Your task to perform on an android device: Go to Google Image 0: 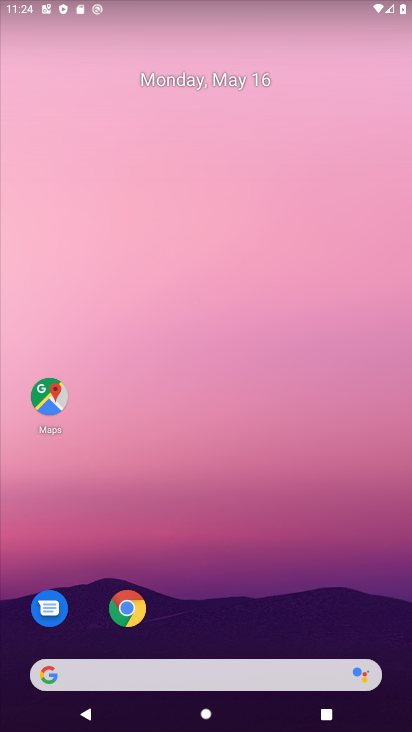
Step 0: press home button
Your task to perform on an android device: Go to Google Image 1: 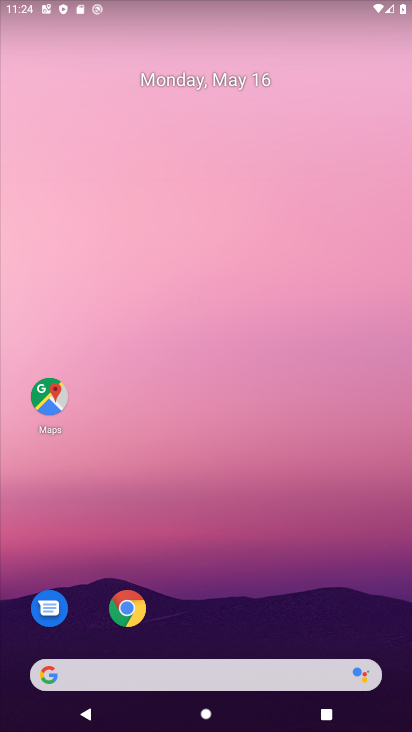
Step 1: drag from (95, 672) to (175, 182)
Your task to perform on an android device: Go to Google Image 2: 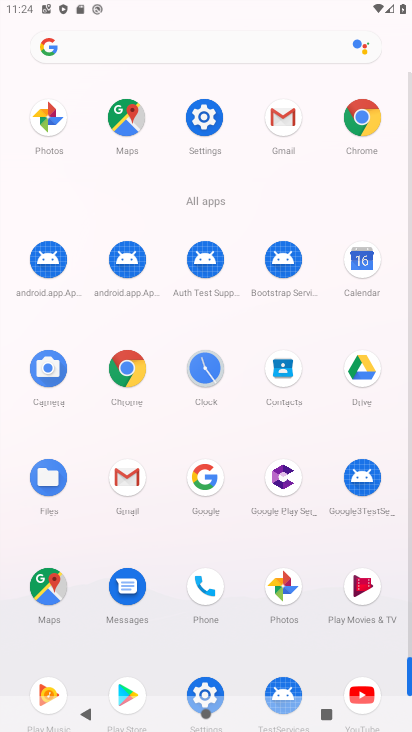
Step 2: click (211, 474)
Your task to perform on an android device: Go to Google Image 3: 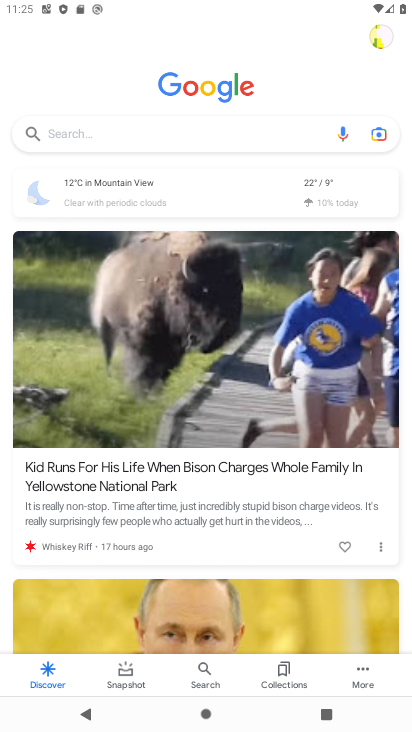
Step 3: task complete